Your task to perform on an android device: turn off improve location accuracy Image 0: 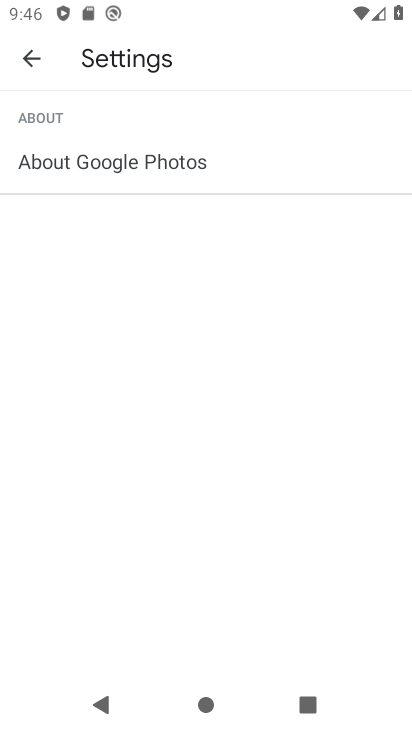
Step 0: press home button
Your task to perform on an android device: turn off improve location accuracy Image 1: 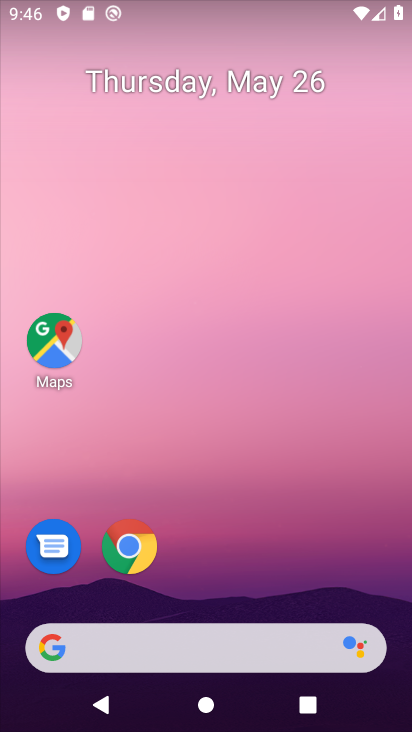
Step 1: drag from (290, 575) to (317, 284)
Your task to perform on an android device: turn off improve location accuracy Image 2: 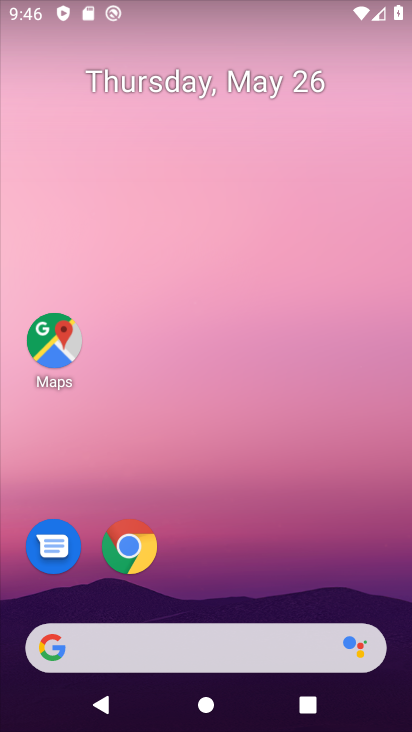
Step 2: drag from (301, 559) to (305, 206)
Your task to perform on an android device: turn off improve location accuracy Image 3: 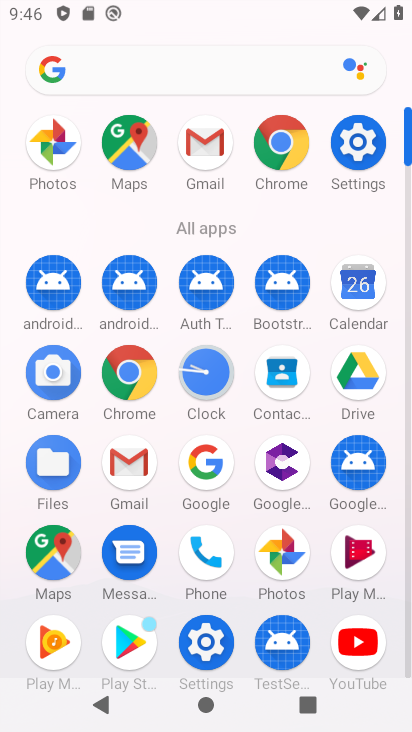
Step 3: click (362, 143)
Your task to perform on an android device: turn off improve location accuracy Image 4: 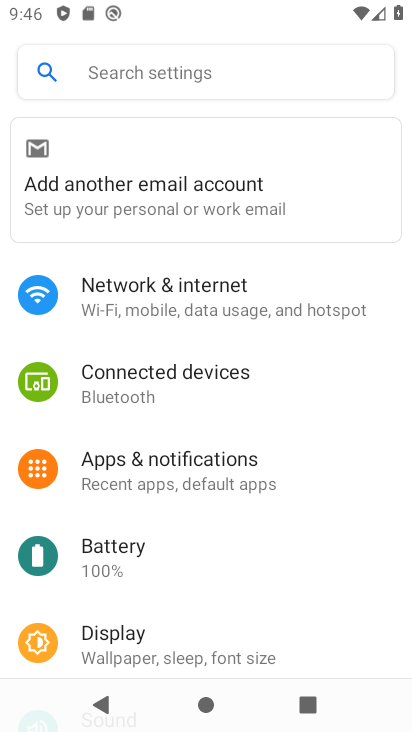
Step 4: drag from (327, 658) to (336, 261)
Your task to perform on an android device: turn off improve location accuracy Image 5: 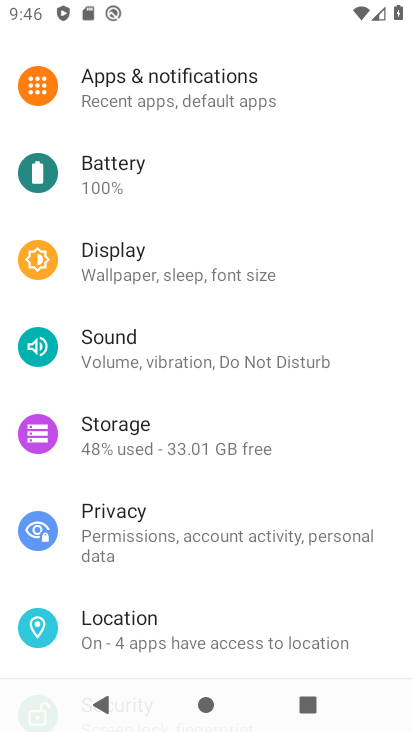
Step 5: click (231, 636)
Your task to perform on an android device: turn off improve location accuracy Image 6: 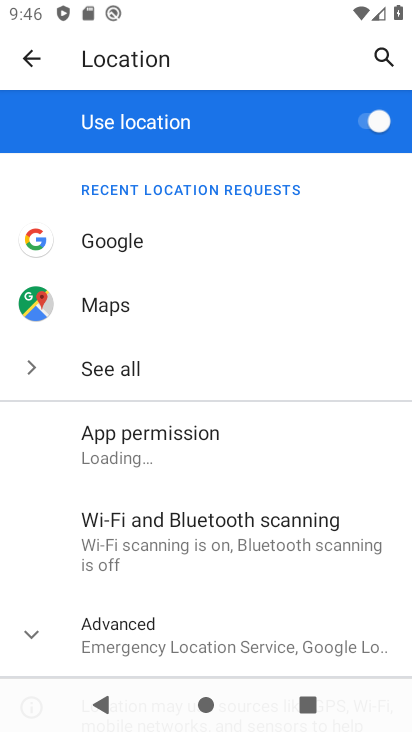
Step 6: click (31, 631)
Your task to perform on an android device: turn off improve location accuracy Image 7: 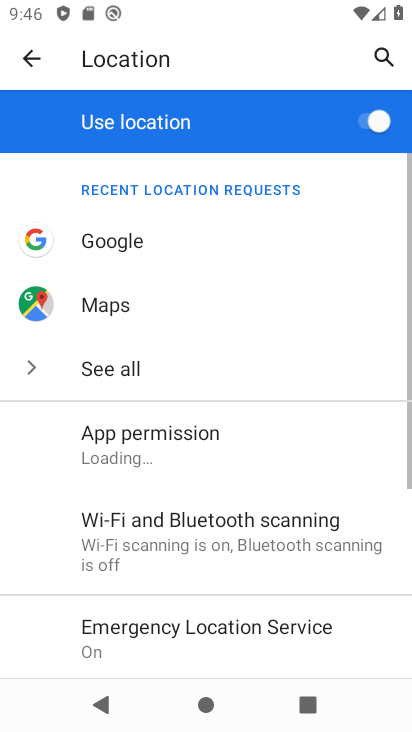
Step 7: drag from (331, 573) to (359, 188)
Your task to perform on an android device: turn off improve location accuracy Image 8: 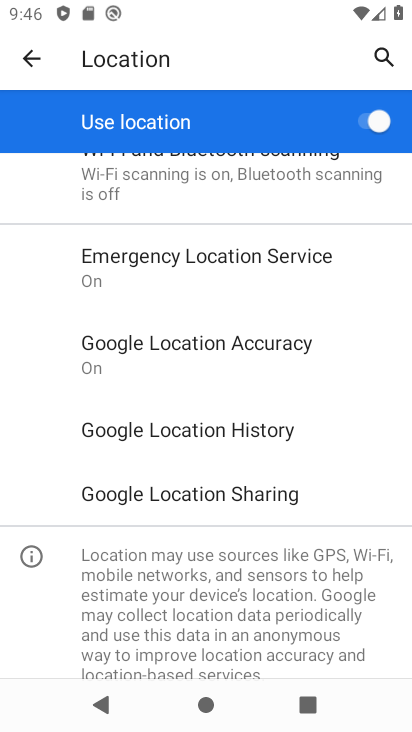
Step 8: click (197, 342)
Your task to perform on an android device: turn off improve location accuracy Image 9: 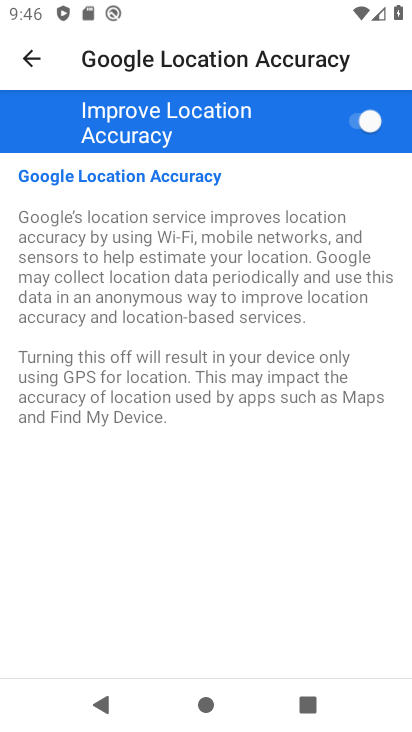
Step 9: click (357, 118)
Your task to perform on an android device: turn off improve location accuracy Image 10: 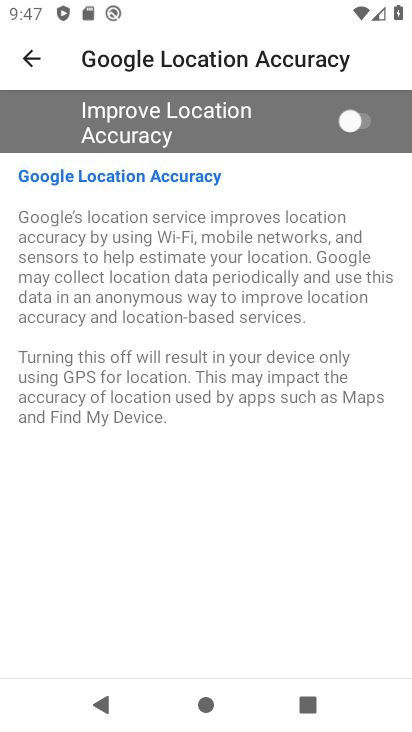
Step 10: task complete